Your task to perform on an android device: Open ESPN.com Image 0: 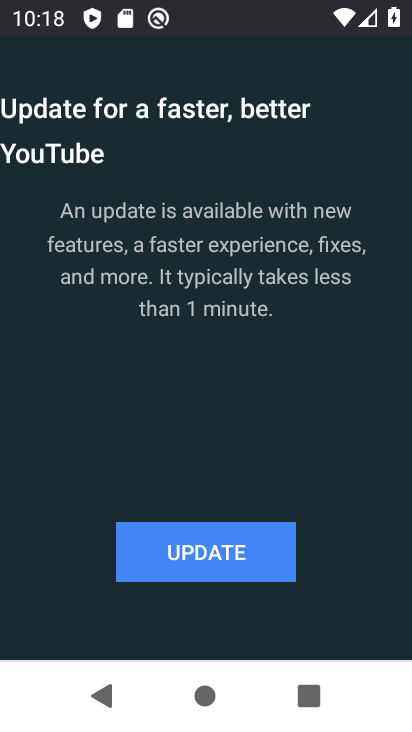
Step 0: press home button
Your task to perform on an android device: Open ESPN.com Image 1: 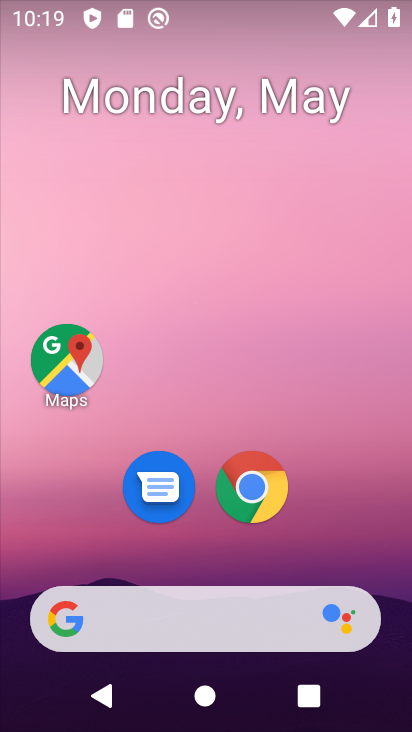
Step 1: drag from (372, 541) to (167, 179)
Your task to perform on an android device: Open ESPN.com Image 2: 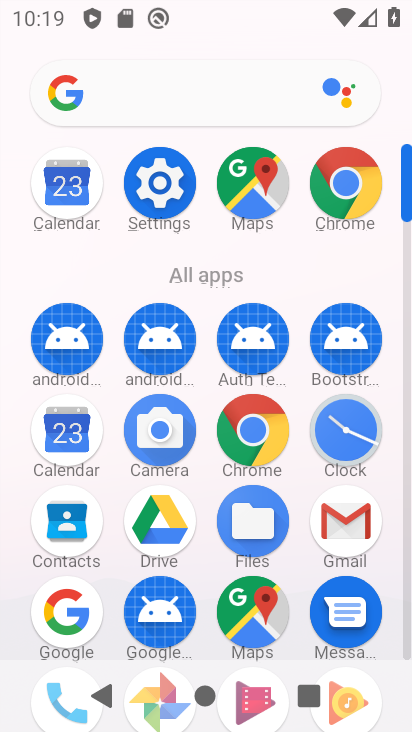
Step 2: click (258, 435)
Your task to perform on an android device: Open ESPN.com Image 3: 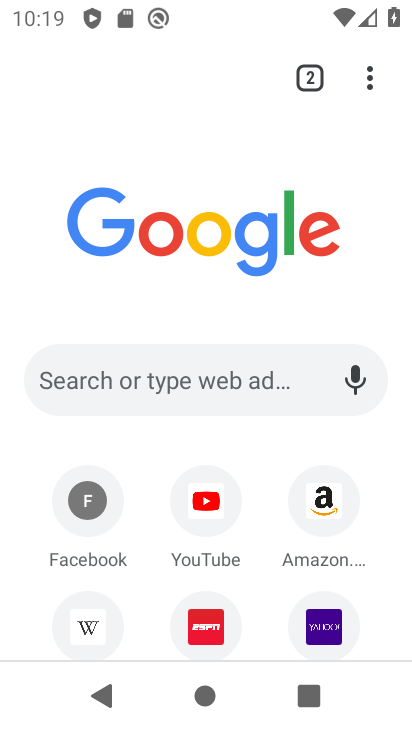
Step 3: drag from (285, 428) to (270, 190)
Your task to perform on an android device: Open ESPN.com Image 4: 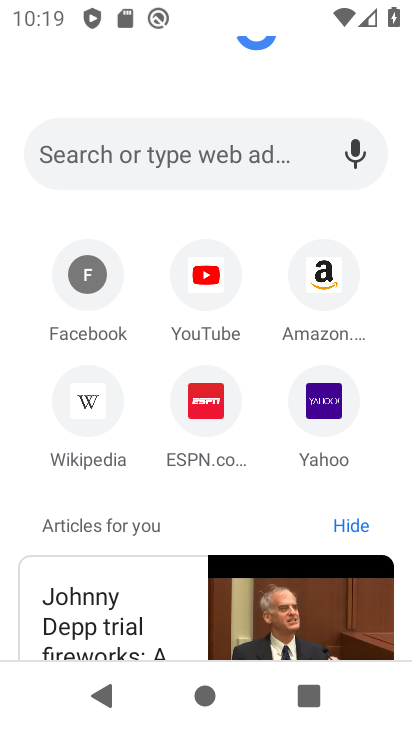
Step 4: click (217, 413)
Your task to perform on an android device: Open ESPN.com Image 5: 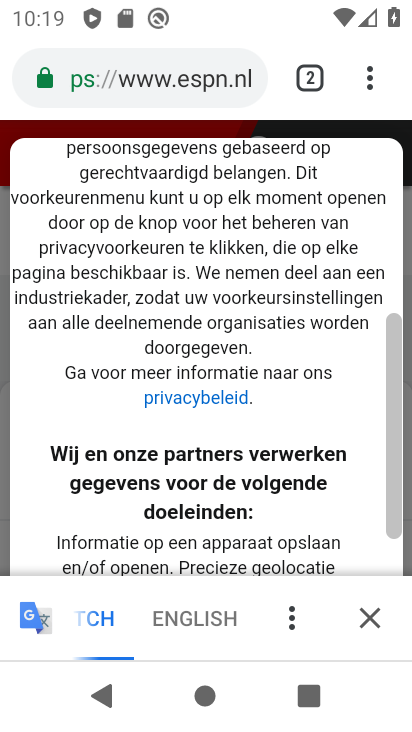
Step 5: task complete